Your task to perform on an android device: Go to calendar. Show me events next week Image 0: 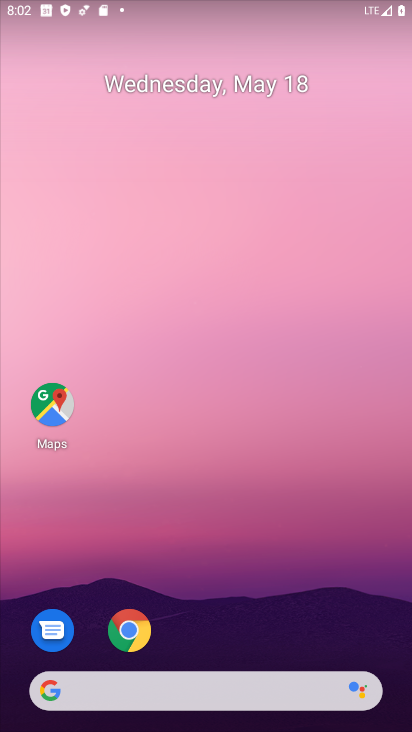
Step 0: drag from (160, 696) to (282, 232)
Your task to perform on an android device: Go to calendar. Show me events next week Image 1: 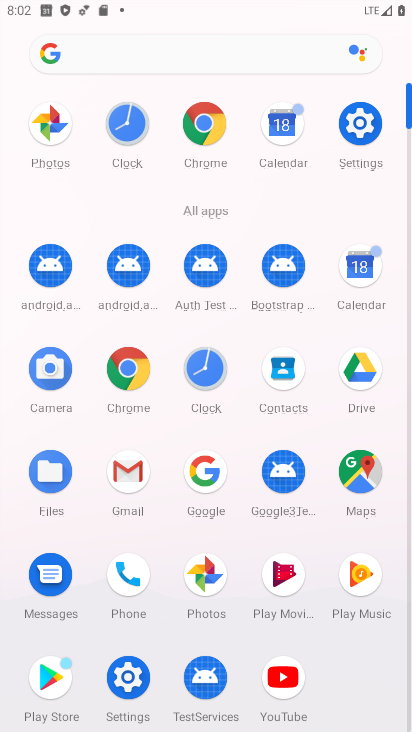
Step 1: click (360, 272)
Your task to perform on an android device: Go to calendar. Show me events next week Image 2: 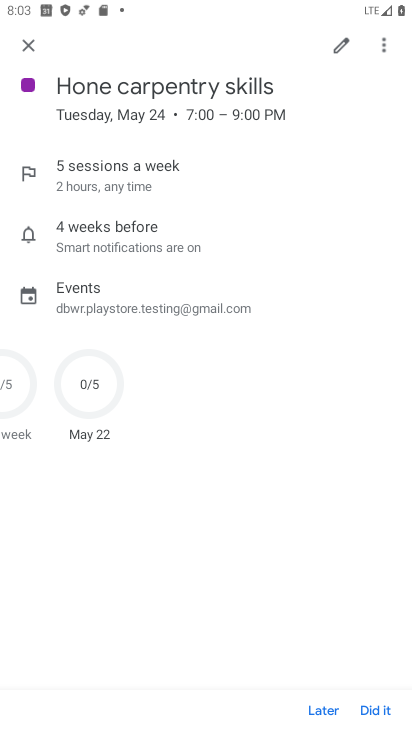
Step 2: task complete